Your task to perform on an android device: What's on my calendar today? Image 0: 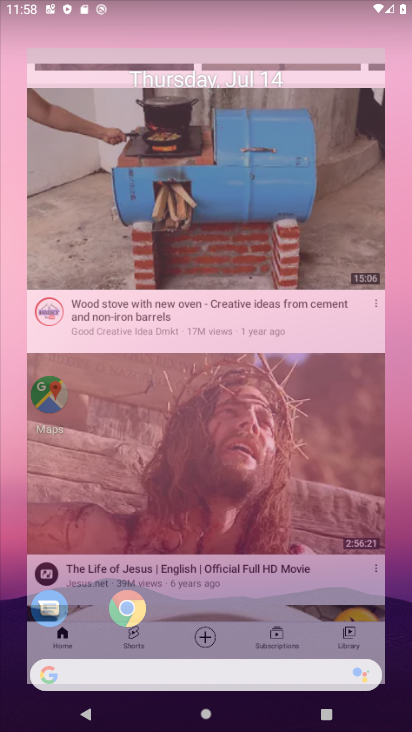
Step 0: drag from (197, 671) to (219, 208)
Your task to perform on an android device: What's on my calendar today? Image 1: 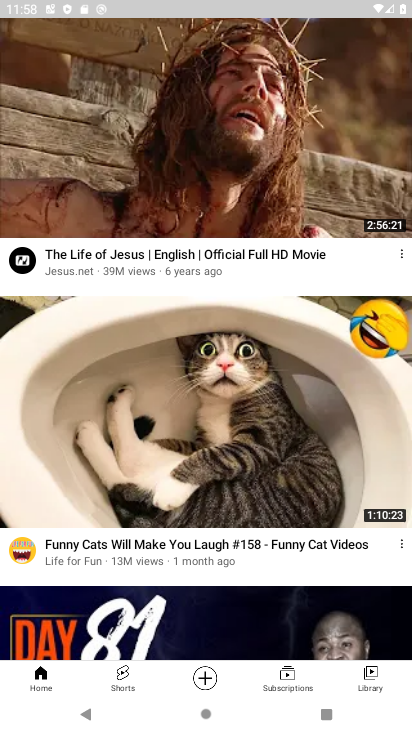
Step 1: press home button
Your task to perform on an android device: What's on my calendar today? Image 2: 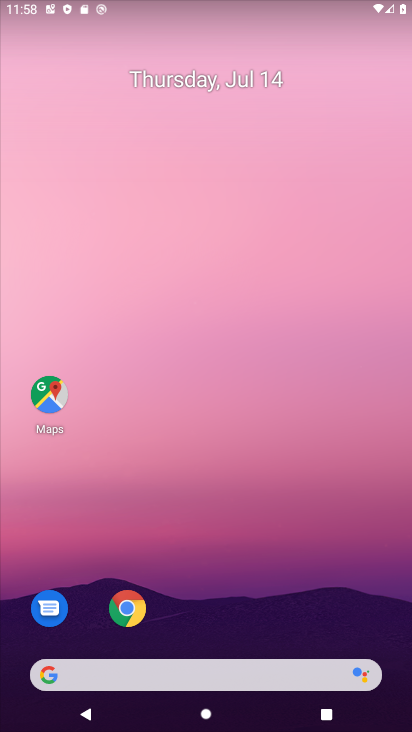
Step 2: drag from (240, 657) to (289, 57)
Your task to perform on an android device: What's on my calendar today? Image 3: 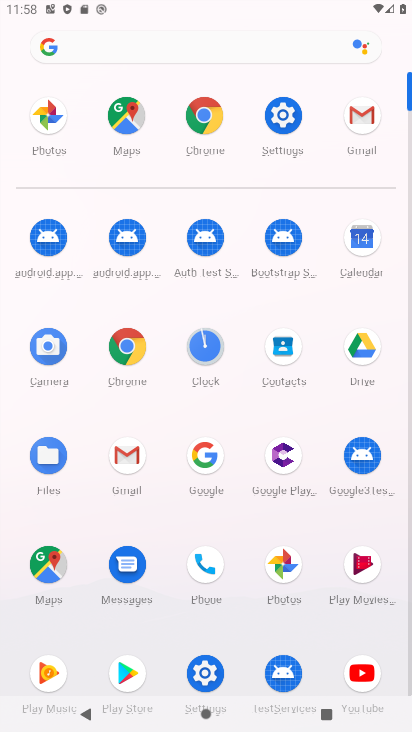
Step 3: click (360, 240)
Your task to perform on an android device: What's on my calendar today? Image 4: 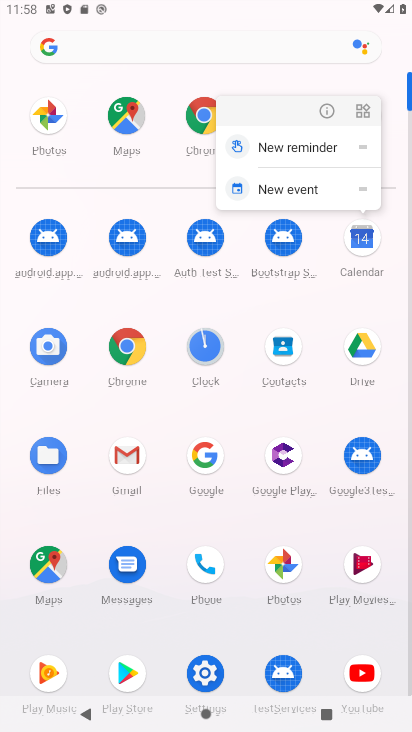
Step 4: click (371, 242)
Your task to perform on an android device: What's on my calendar today? Image 5: 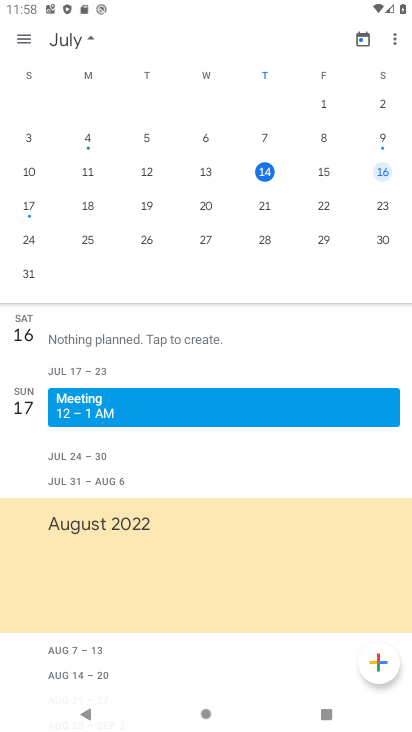
Step 5: click (326, 173)
Your task to perform on an android device: What's on my calendar today? Image 6: 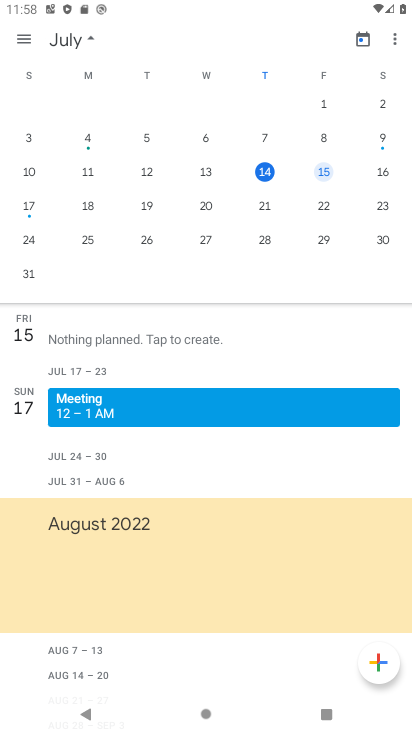
Step 6: task complete